Your task to perform on an android device: What is the recent news? Image 0: 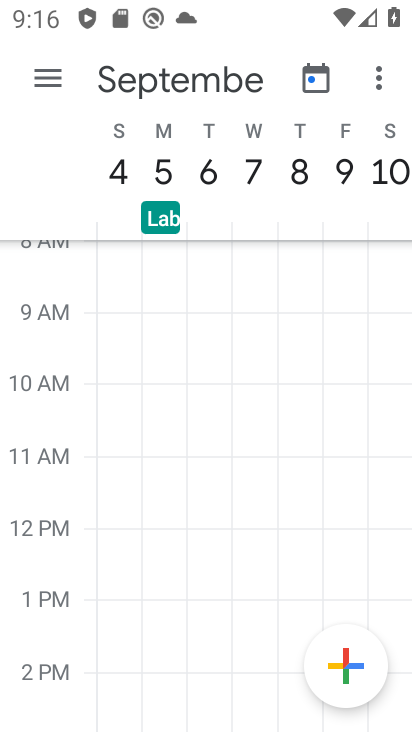
Step 0: press home button
Your task to perform on an android device: What is the recent news? Image 1: 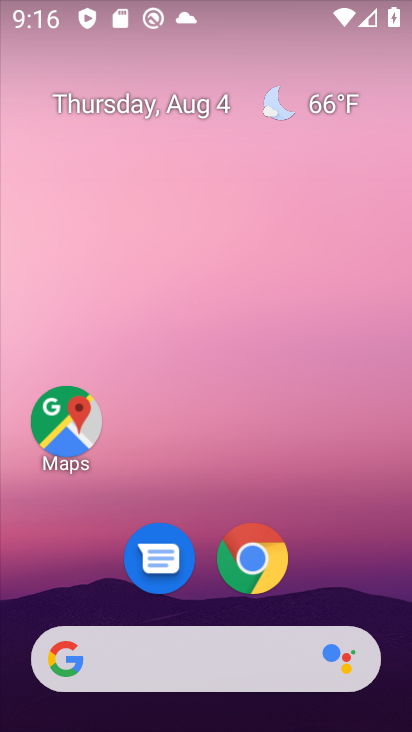
Step 1: drag from (351, 572) to (410, 198)
Your task to perform on an android device: What is the recent news? Image 2: 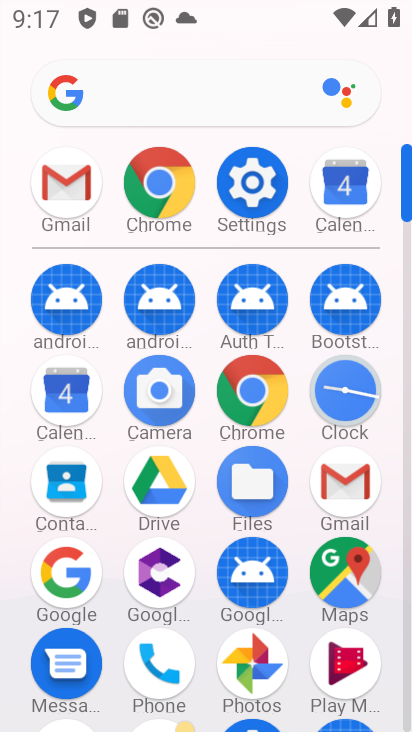
Step 2: click (254, 389)
Your task to perform on an android device: What is the recent news? Image 3: 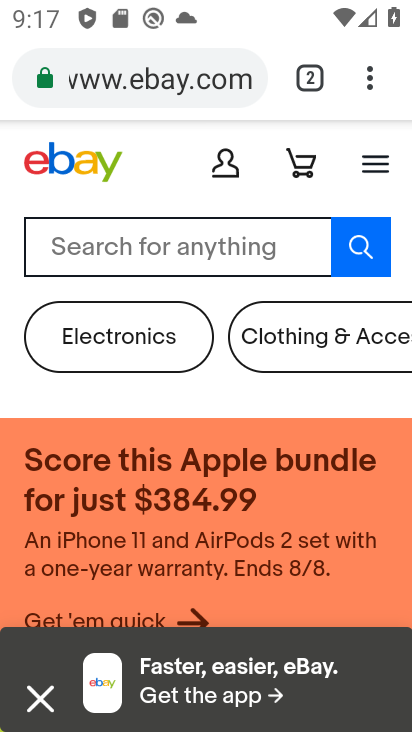
Step 3: click (214, 83)
Your task to perform on an android device: What is the recent news? Image 4: 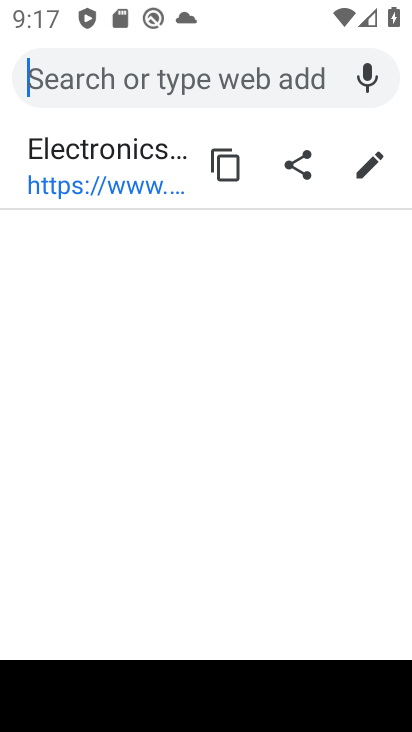
Step 4: type "news"
Your task to perform on an android device: What is the recent news? Image 5: 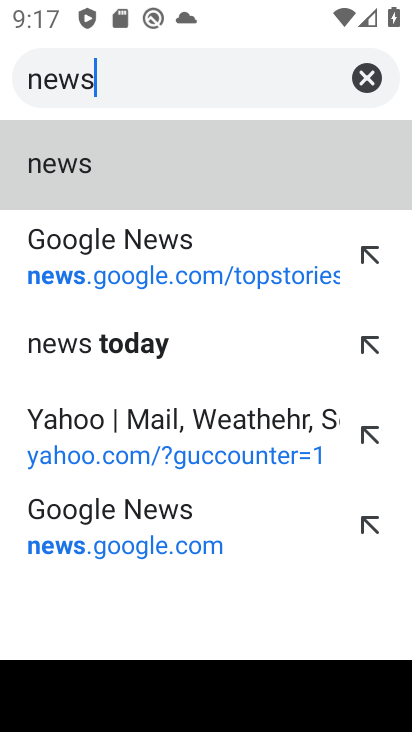
Step 5: click (113, 271)
Your task to perform on an android device: What is the recent news? Image 6: 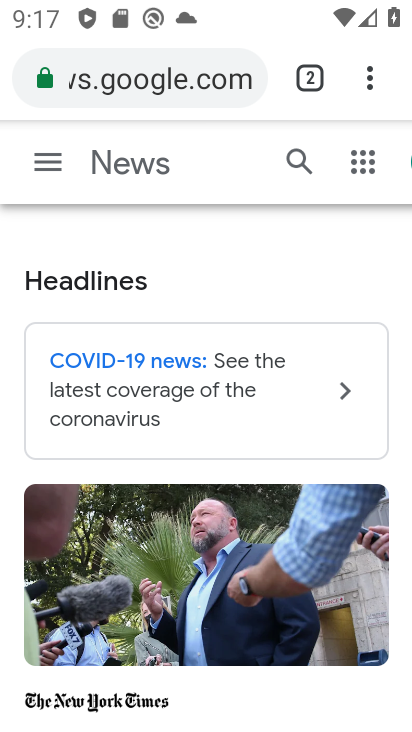
Step 6: task complete